Your task to perform on an android device: Open Google Maps and go to "Timeline" Image 0: 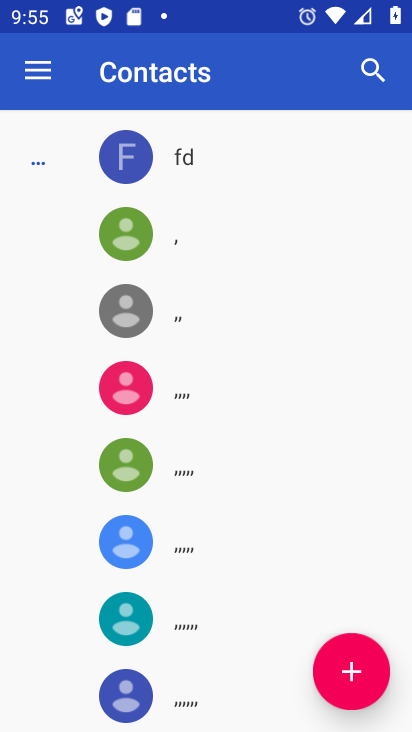
Step 0: press home button
Your task to perform on an android device: Open Google Maps and go to "Timeline" Image 1: 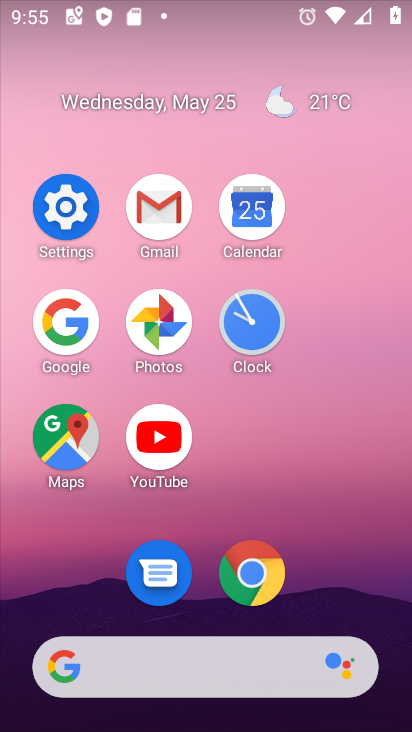
Step 1: click (83, 434)
Your task to perform on an android device: Open Google Maps and go to "Timeline" Image 2: 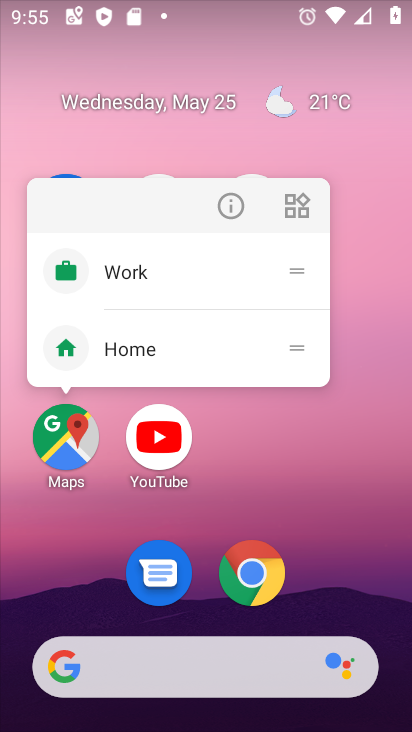
Step 2: click (62, 447)
Your task to perform on an android device: Open Google Maps and go to "Timeline" Image 3: 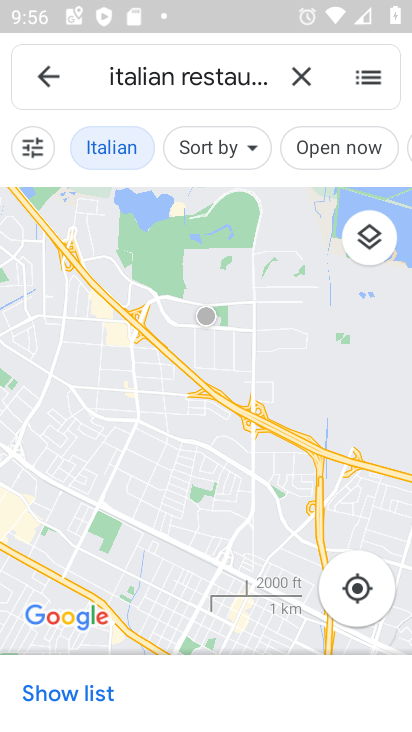
Step 3: click (41, 100)
Your task to perform on an android device: Open Google Maps and go to "Timeline" Image 4: 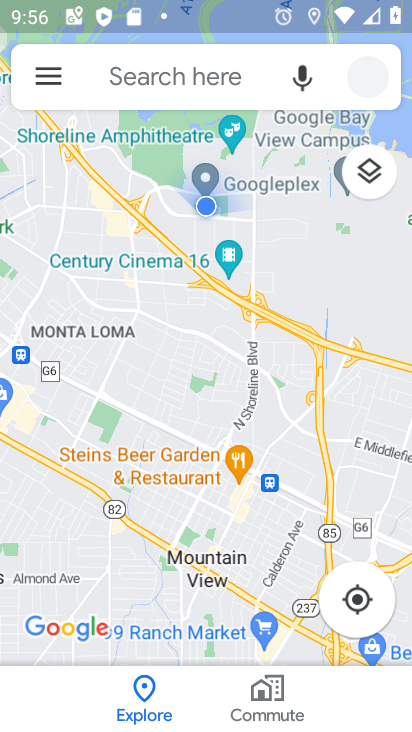
Step 4: click (54, 83)
Your task to perform on an android device: Open Google Maps and go to "Timeline" Image 5: 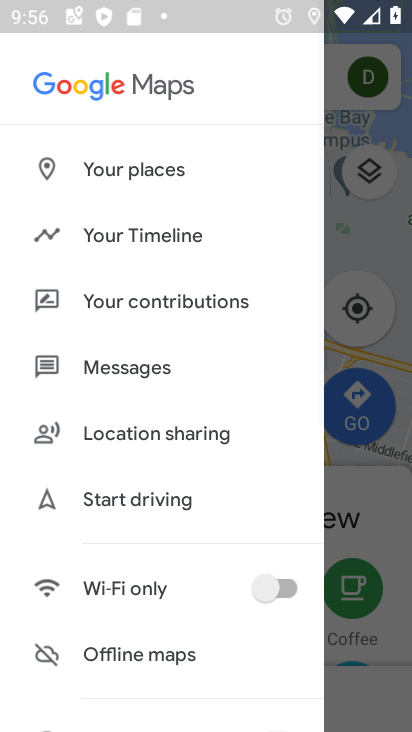
Step 5: click (94, 239)
Your task to perform on an android device: Open Google Maps and go to "Timeline" Image 6: 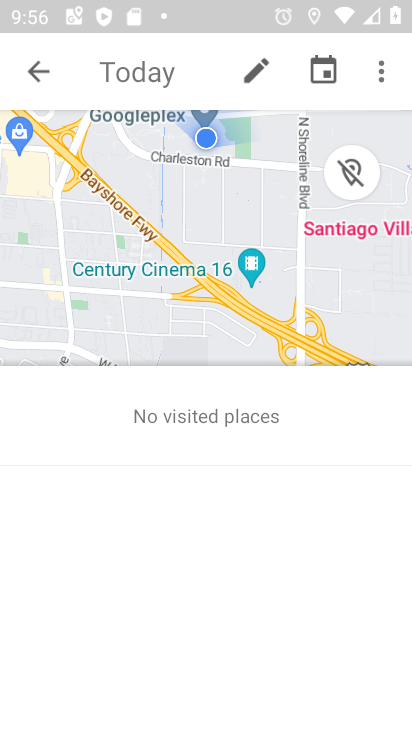
Step 6: task complete